Your task to perform on an android device: empty trash in google photos Image 0: 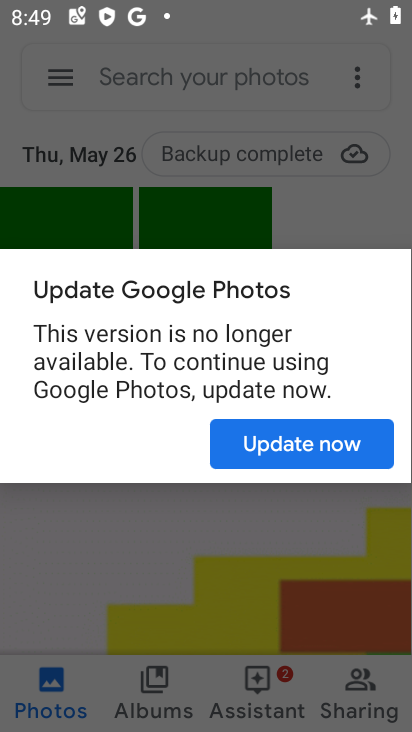
Step 0: press home button
Your task to perform on an android device: empty trash in google photos Image 1: 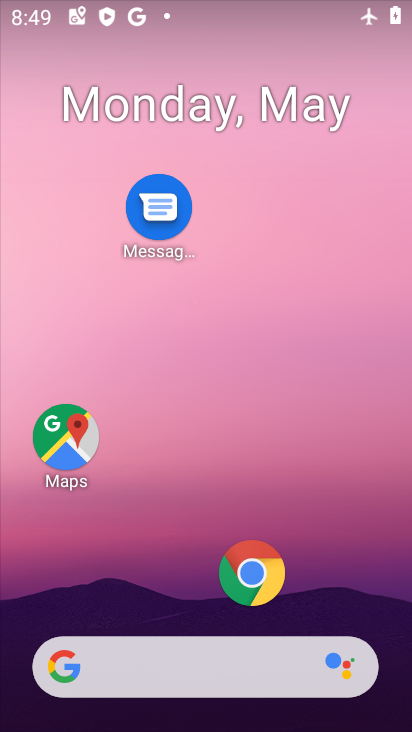
Step 1: drag from (212, 661) to (209, 206)
Your task to perform on an android device: empty trash in google photos Image 2: 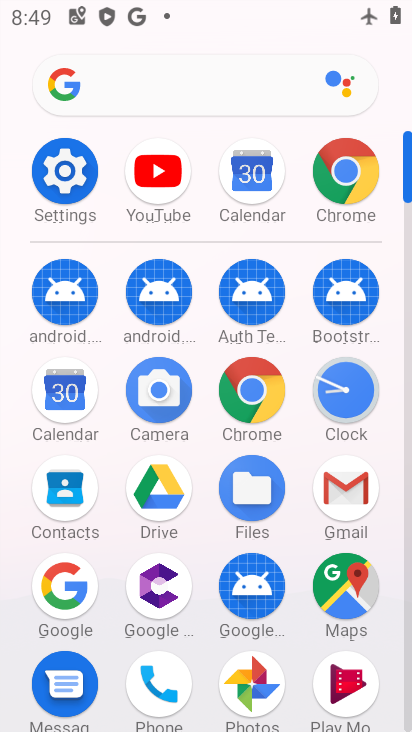
Step 2: click (245, 699)
Your task to perform on an android device: empty trash in google photos Image 3: 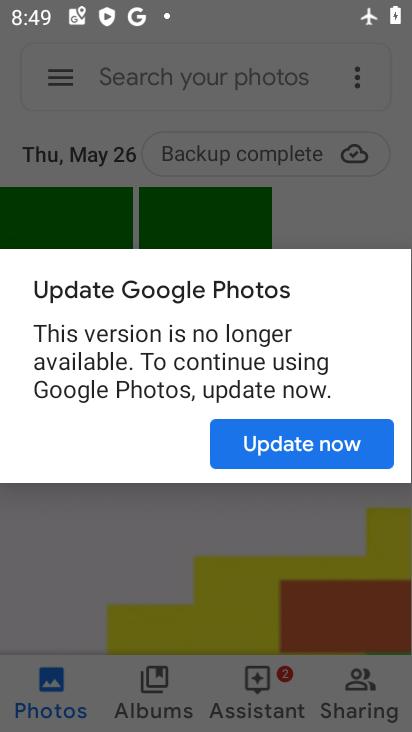
Step 3: click (221, 179)
Your task to perform on an android device: empty trash in google photos Image 4: 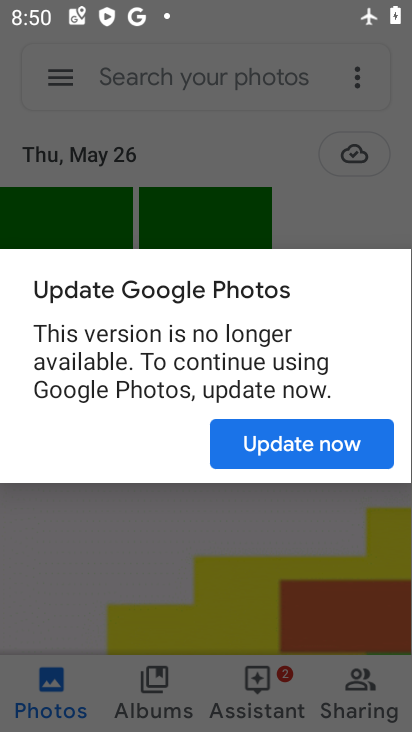
Step 4: click (284, 458)
Your task to perform on an android device: empty trash in google photos Image 5: 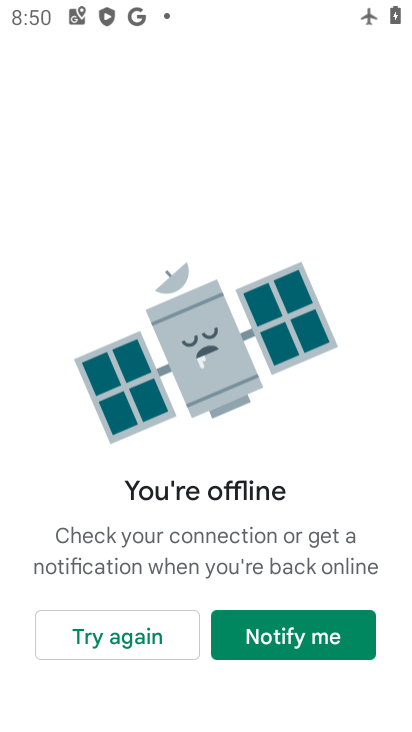
Step 5: task complete